Your task to perform on an android device: toggle notifications settings in the gmail app Image 0: 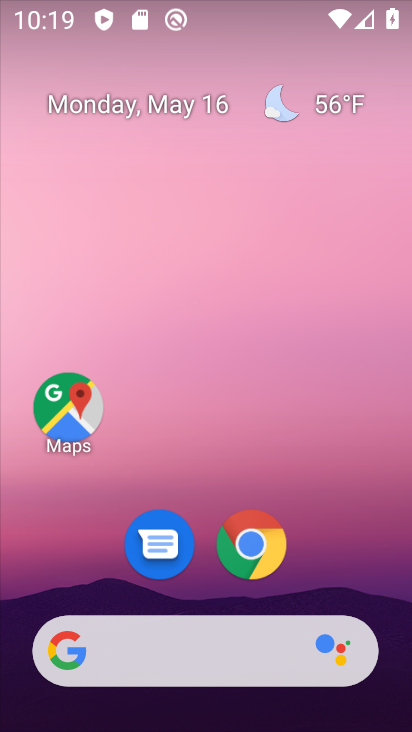
Step 0: drag from (74, 589) to (185, 227)
Your task to perform on an android device: toggle notifications settings in the gmail app Image 1: 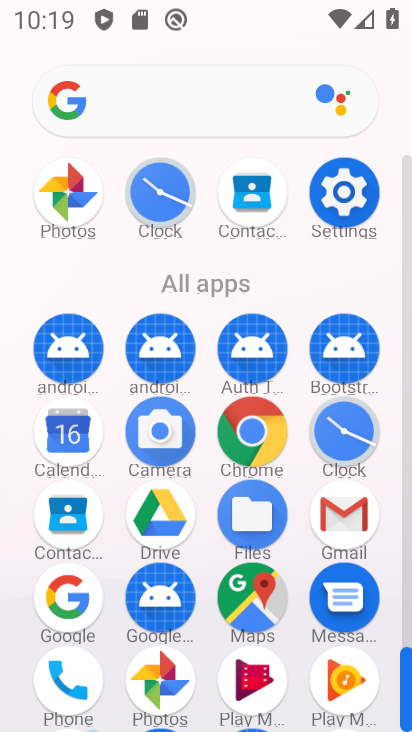
Step 1: click (321, 523)
Your task to perform on an android device: toggle notifications settings in the gmail app Image 2: 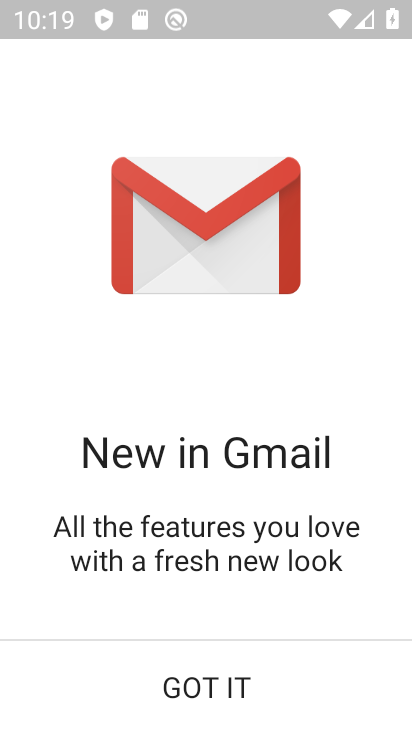
Step 2: click (219, 696)
Your task to perform on an android device: toggle notifications settings in the gmail app Image 3: 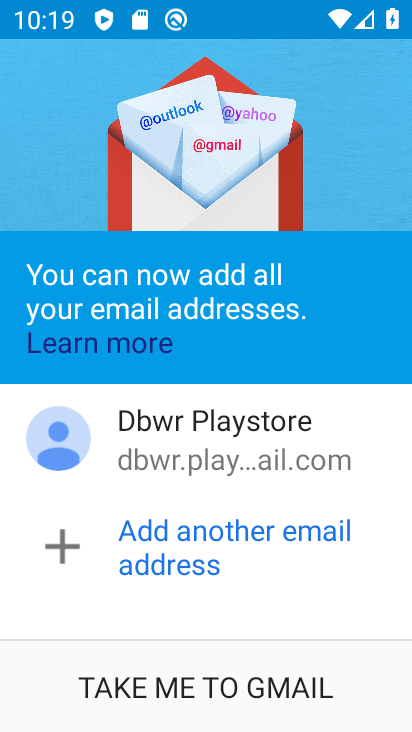
Step 3: click (260, 693)
Your task to perform on an android device: toggle notifications settings in the gmail app Image 4: 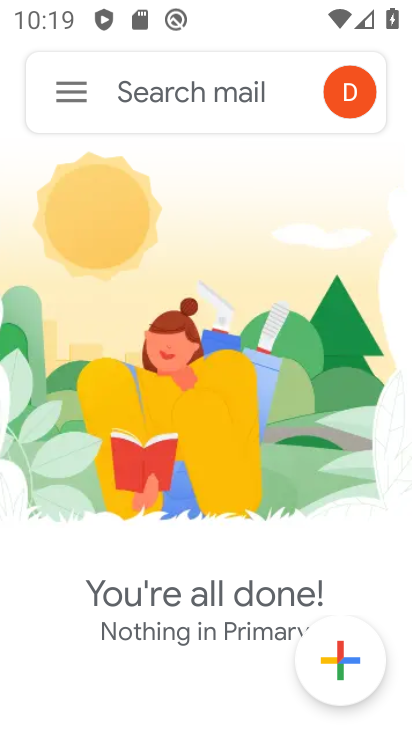
Step 4: click (90, 107)
Your task to perform on an android device: toggle notifications settings in the gmail app Image 5: 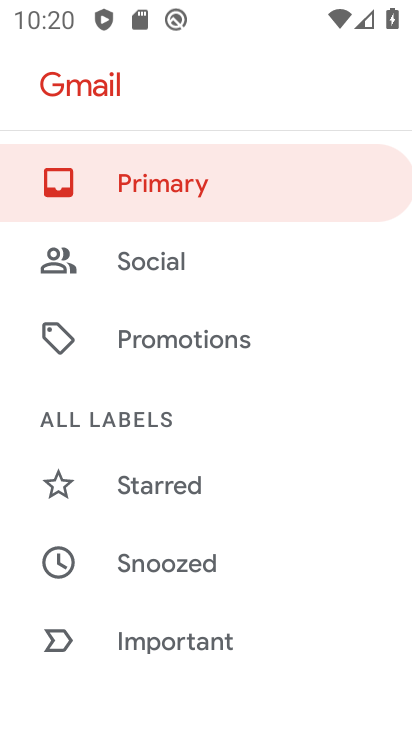
Step 5: drag from (183, 614) to (324, 156)
Your task to perform on an android device: toggle notifications settings in the gmail app Image 6: 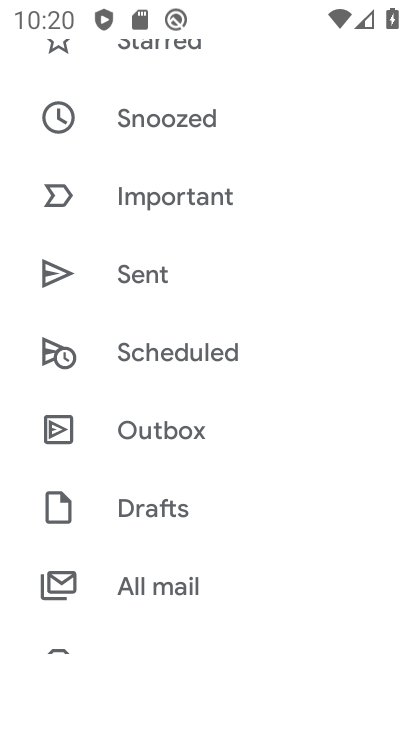
Step 6: drag from (181, 568) to (326, 198)
Your task to perform on an android device: toggle notifications settings in the gmail app Image 7: 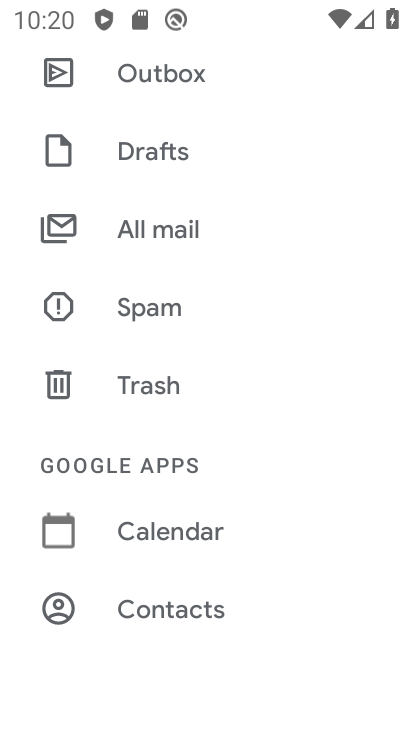
Step 7: drag from (229, 598) to (321, 216)
Your task to perform on an android device: toggle notifications settings in the gmail app Image 8: 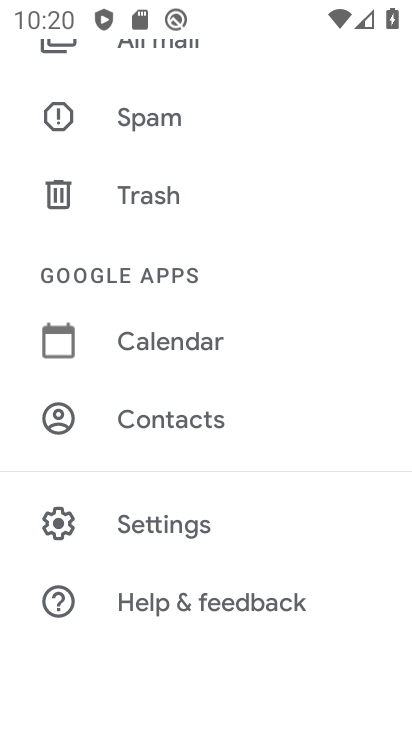
Step 8: click (202, 541)
Your task to perform on an android device: toggle notifications settings in the gmail app Image 9: 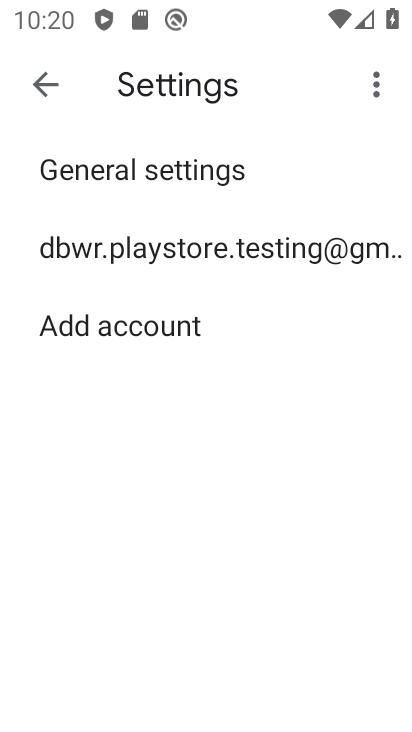
Step 9: click (287, 256)
Your task to perform on an android device: toggle notifications settings in the gmail app Image 10: 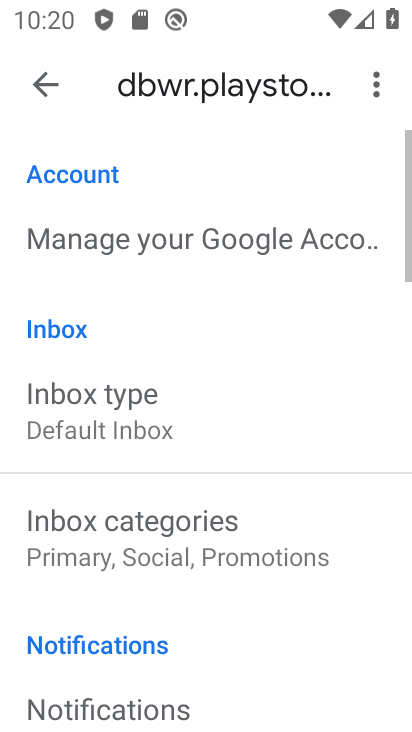
Step 10: drag from (198, 616) to (245, 297)
Your task to perform on an android device: toggle notifications settings in the gmail app Image 11: 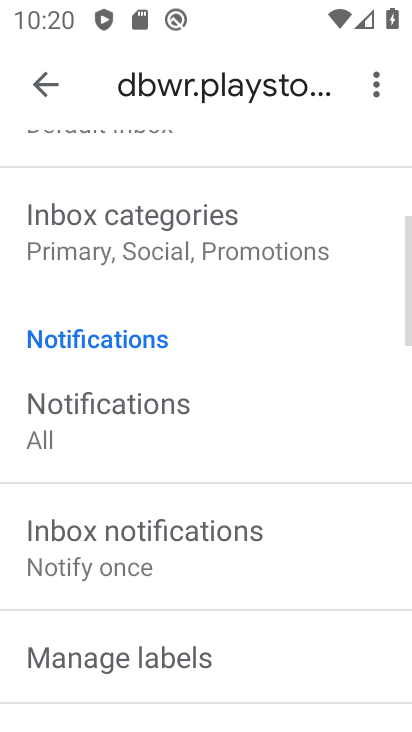
Step 11: drag from (158, 654) to (208, 396)
Your task to perform on an android device: toggle notifications settings in the gmail app Image 12: 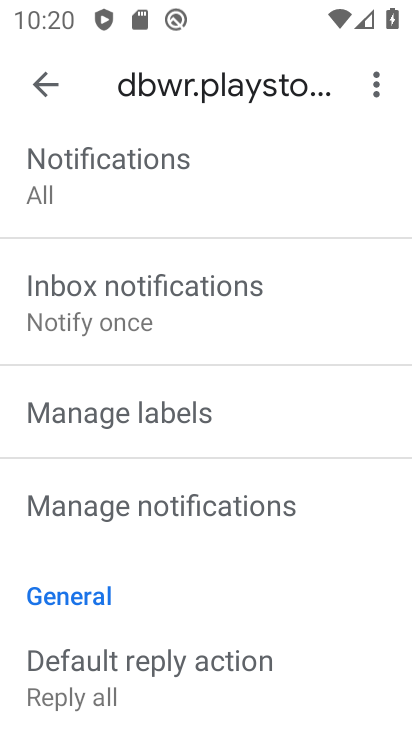
Step 12: click (216, 519)
Your task to perform on an android device: toggle notifications settings in the gmail app Image 13: 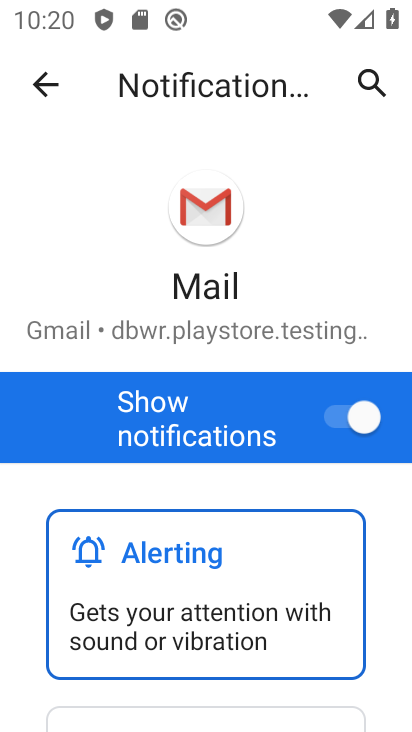
Step 13: click (332, 416)
Your task to perform on an android device: toggle notifications settings in the gmail app Image 14: 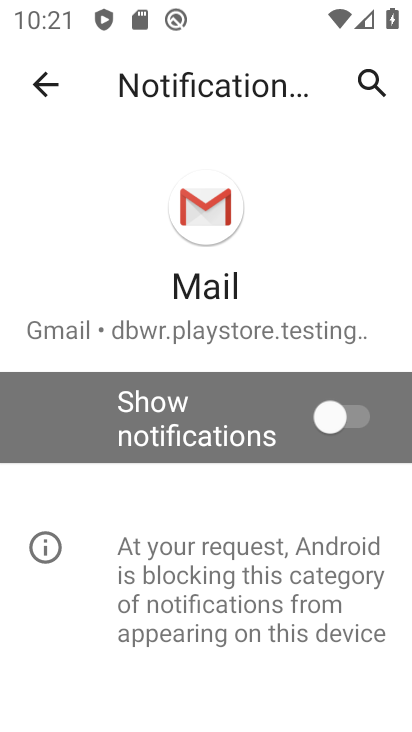
Step 14: task complete